Your task to perform on an android device: What's on my calendar today? Image 0: 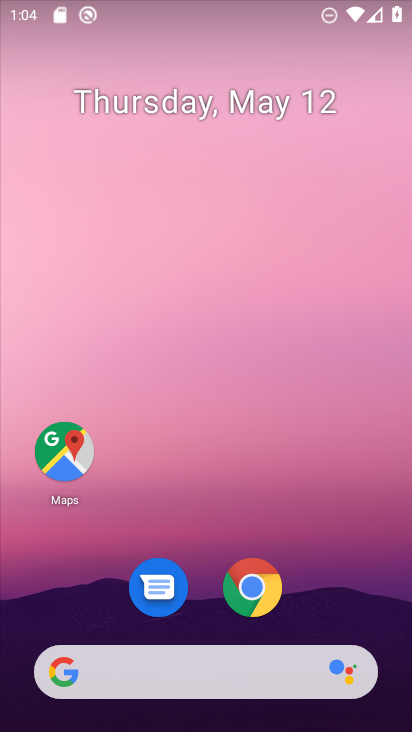
Step 0: drag from (335, 552) to (228, 78)
Your task to perform on an android device: What's on my calendar today? Image 1: 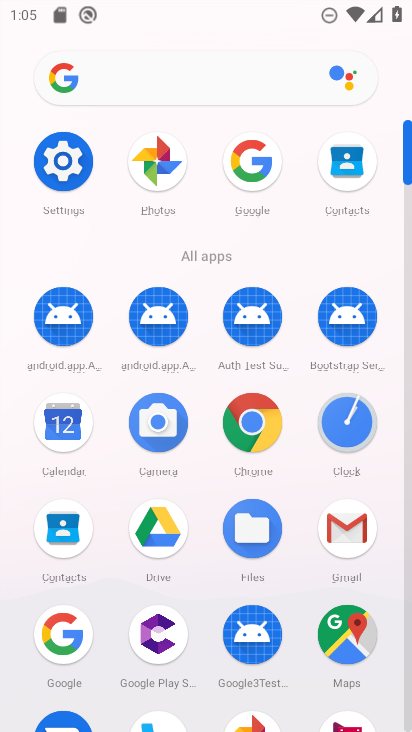
Step 1: click (65, 420)
Your task to perform on an android device: What's on my calendar today? Image 2: 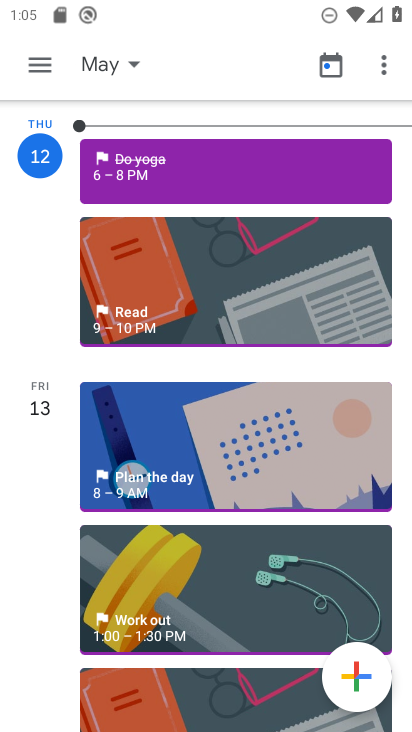
Step 2: task complete